Your task to perform on an android device: change the clock display to analog Image 0: 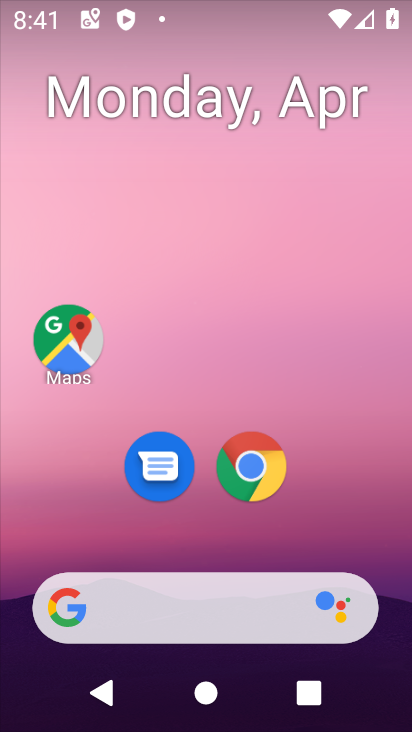
Step 0: drag from (219, 556) to (228, 158)
Your task to perform on an android device: change the clock display to analog Image 1: 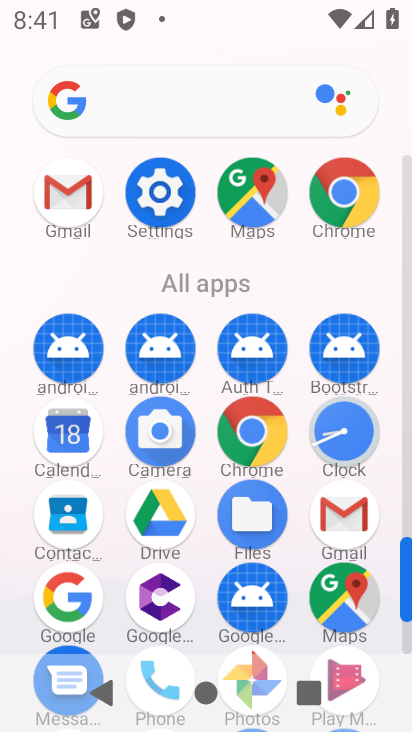
Step 1: click (342, 434)
Your task to perform on an android device: change the clock display to analog Image 2: 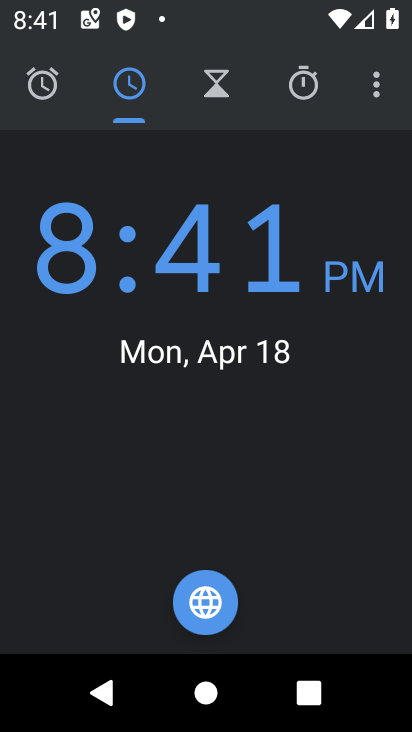
Step 2: click (376, 88)
Your task to perform on an android device: change the clock display to analog Image 3: 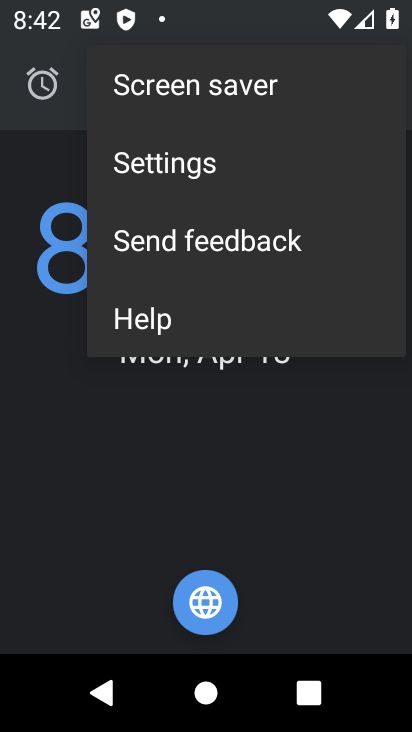
Step 3: click (202, 173)
Your task to perform on an android device: change the clock display to analog Image 4: 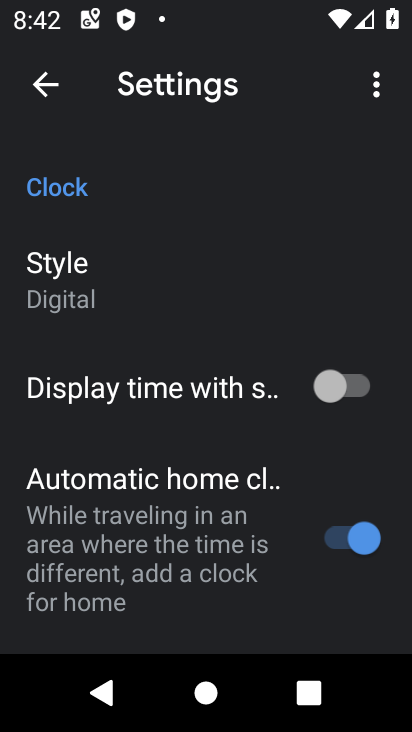
Step 4: click (96, 290)
Your task to perform on an android device: change the clock display to analog Image 5: 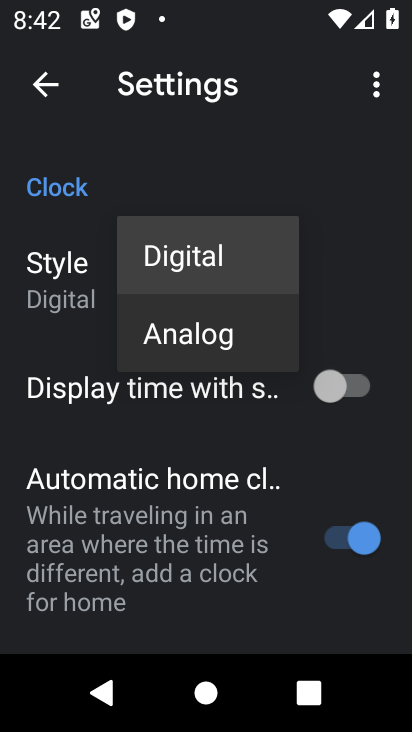
Step 5: click (160, 337)
Your task to perform on an android device: change the clock display to analog Image 6: 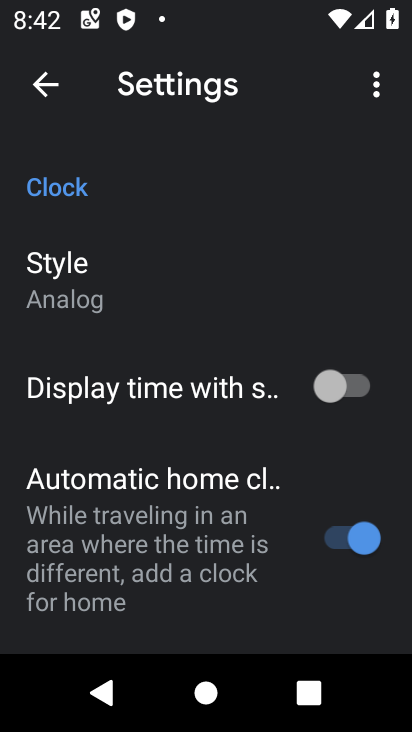
Step 6: task complete